Your task to perform on an android device: Go to Google Image 0: 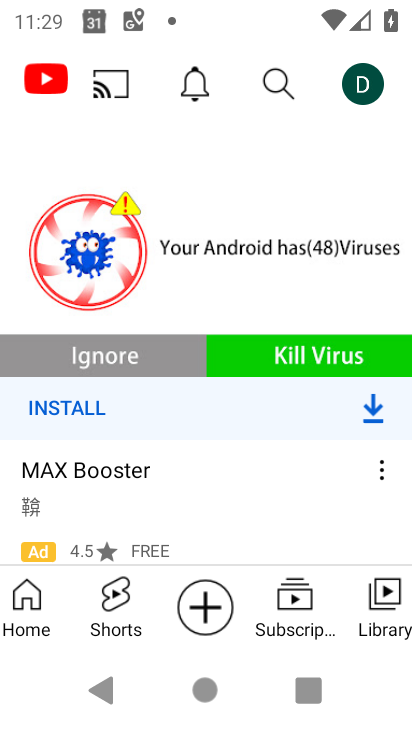
Step 0: press home button
Your task to perform on an android device: Go to Google Image 1: 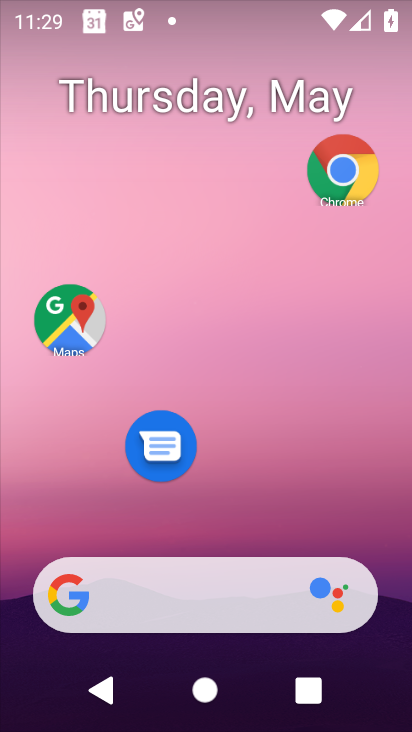
Step 1: drag from (309, 537) to (366, 5)
Your task to perform on an android device: Go to Google Image 2: 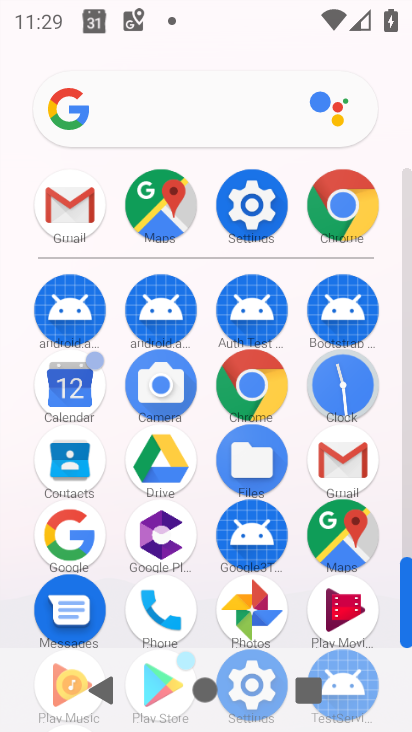
Step 2: click (264, 379)
Your task to perform on an android device: Go to Google Image 3: 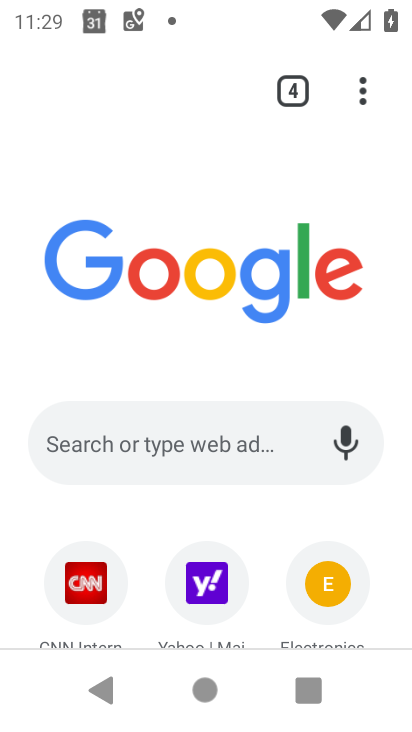
Step 3: task complete